Your task to perform on an android device: Go to Google maps Image 0: 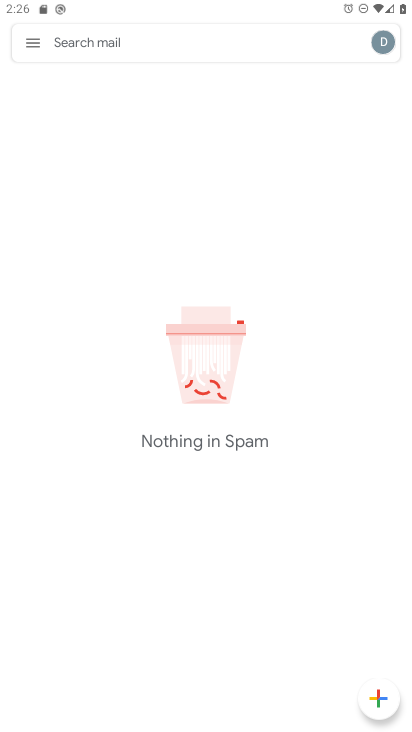
Step 0: press home button
Your task to perform on an android device: Go to Google maps Image 1: 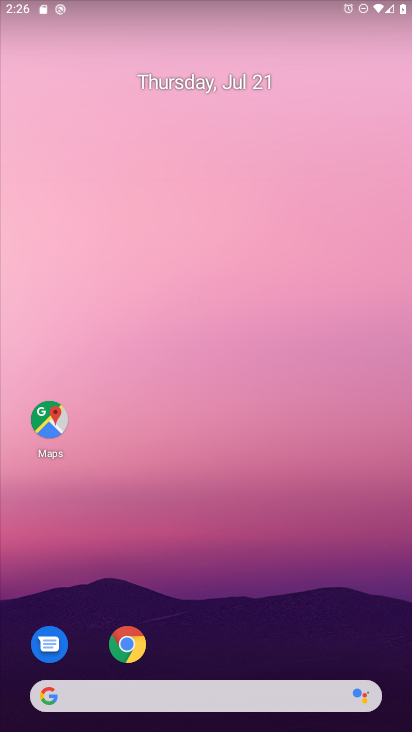
Step 1: click (48, 415)
Your task to perform on an android device: Go to Google maps Image 2: 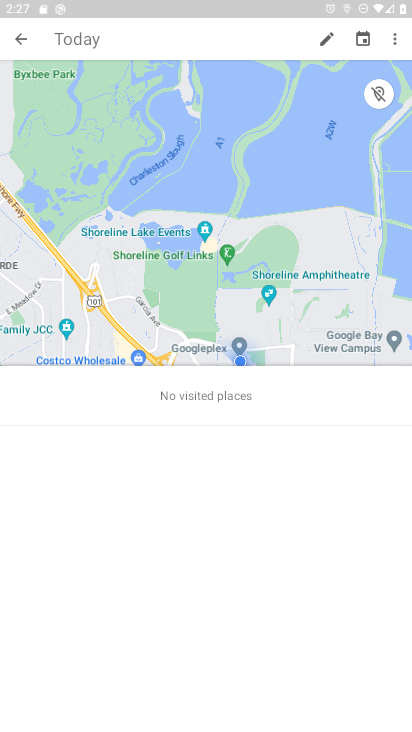
Step 2: click (20, 38)
Your task to perform on an android device: Go to Google maps Image 3: 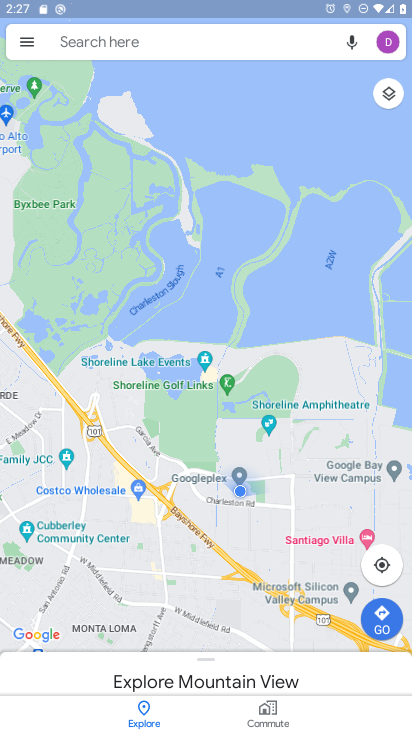
Step 3: task complete